Your task to perform on an android device: Go to CNN.com Image 0: 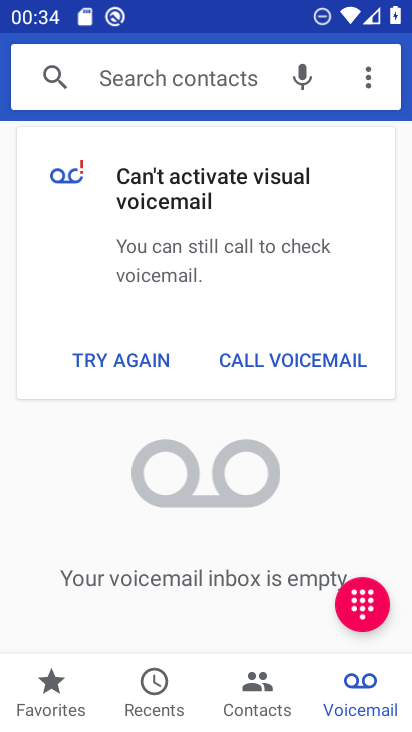
Step 0: press home button
Your task to perform on an android device: Go to CNN.com Image 1: 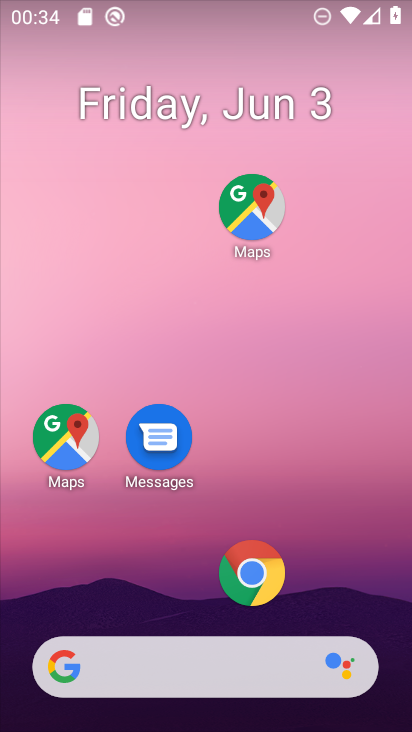
Step 1: click (256, 567)
Your task to perform on an android device: Go to CNN.com Image 2: 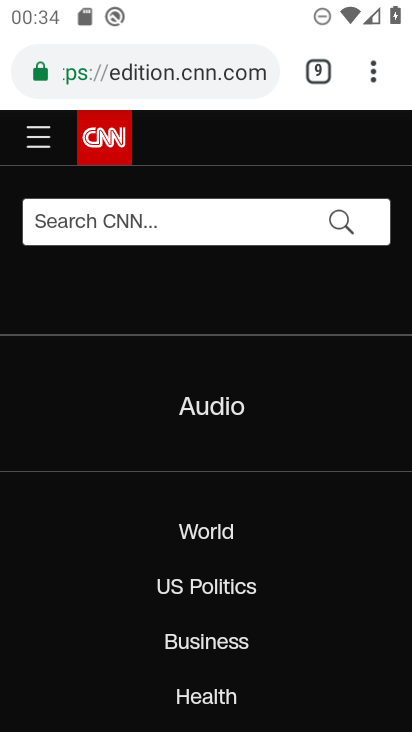
Step 2: task complete